Your task to perform on an android device: Go to privacy settings Image 0: 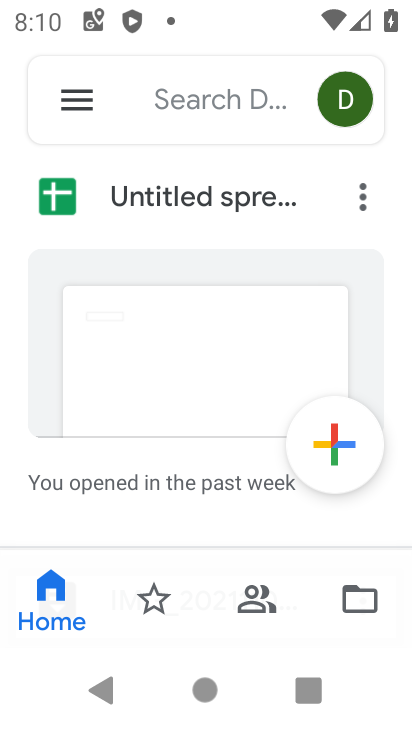
Step 0: press home button
Your task to perform on an android device: Go to privacy settings Image 1: 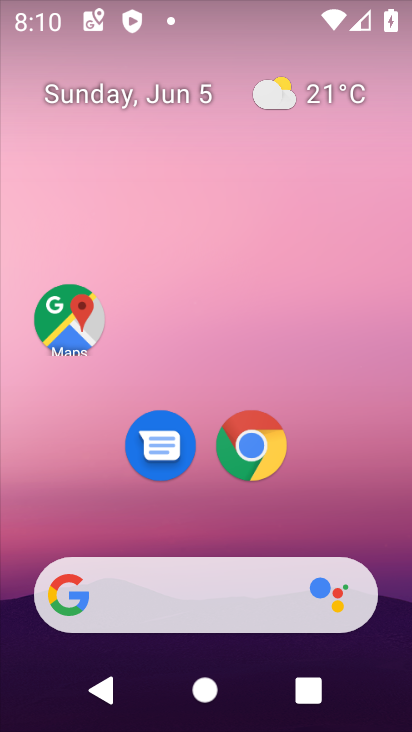
Step 1: drag from (372, 532) to (345, 166)
Your task to perform on an android device: Go to privacy settings Image 2: 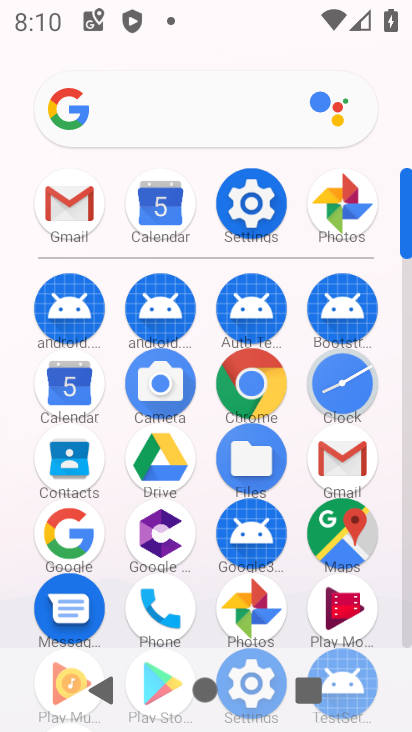
Step 2: click (230, 199)
Your task to perform on an android device: Go to privacy settings Image 3: 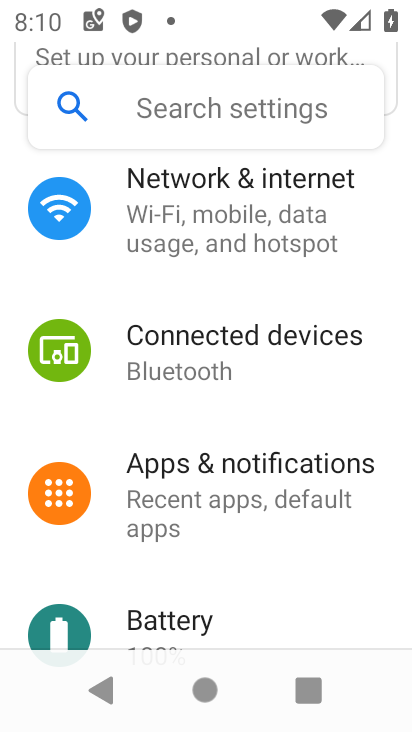
Step 3: drag from (279, 580) to (278, 1)
Your task to perform on an android device: Go to privacy settings Image 4: 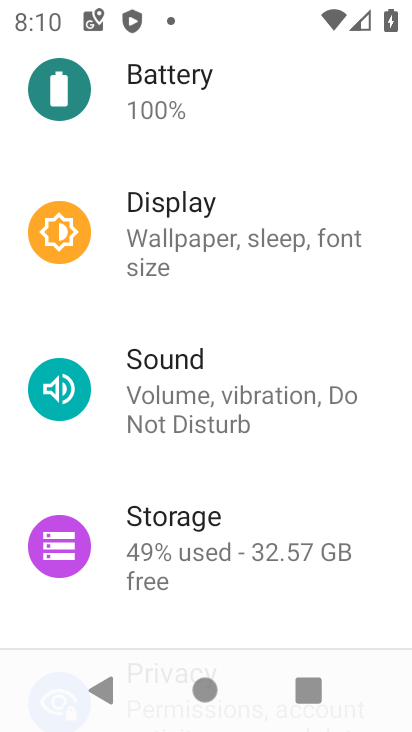
Step 4: drag from (42, 619) to (56, 332)
Your task to perform on an android device: Go to privacy settings Image 5: 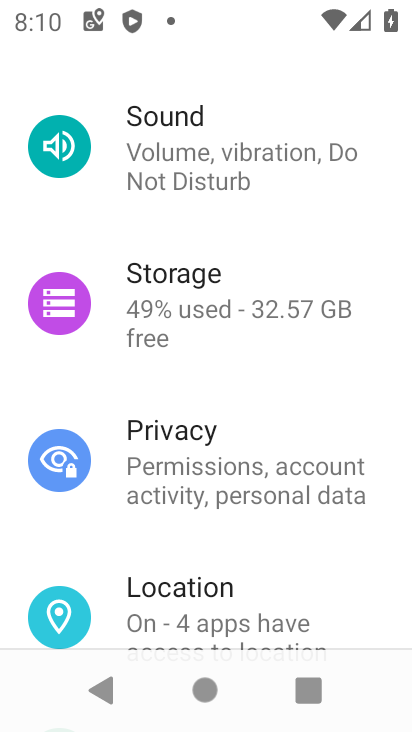
Step 5: click (178, 472)
Your task to perform on an android device: Go to privacy settings Image 6: 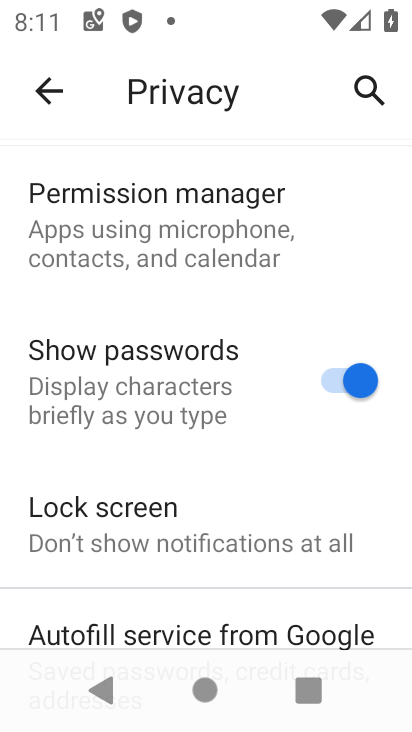
Step 6: task complete